Your task to perform on an android device: open app "Roku - Official Remote Control" Image 0: 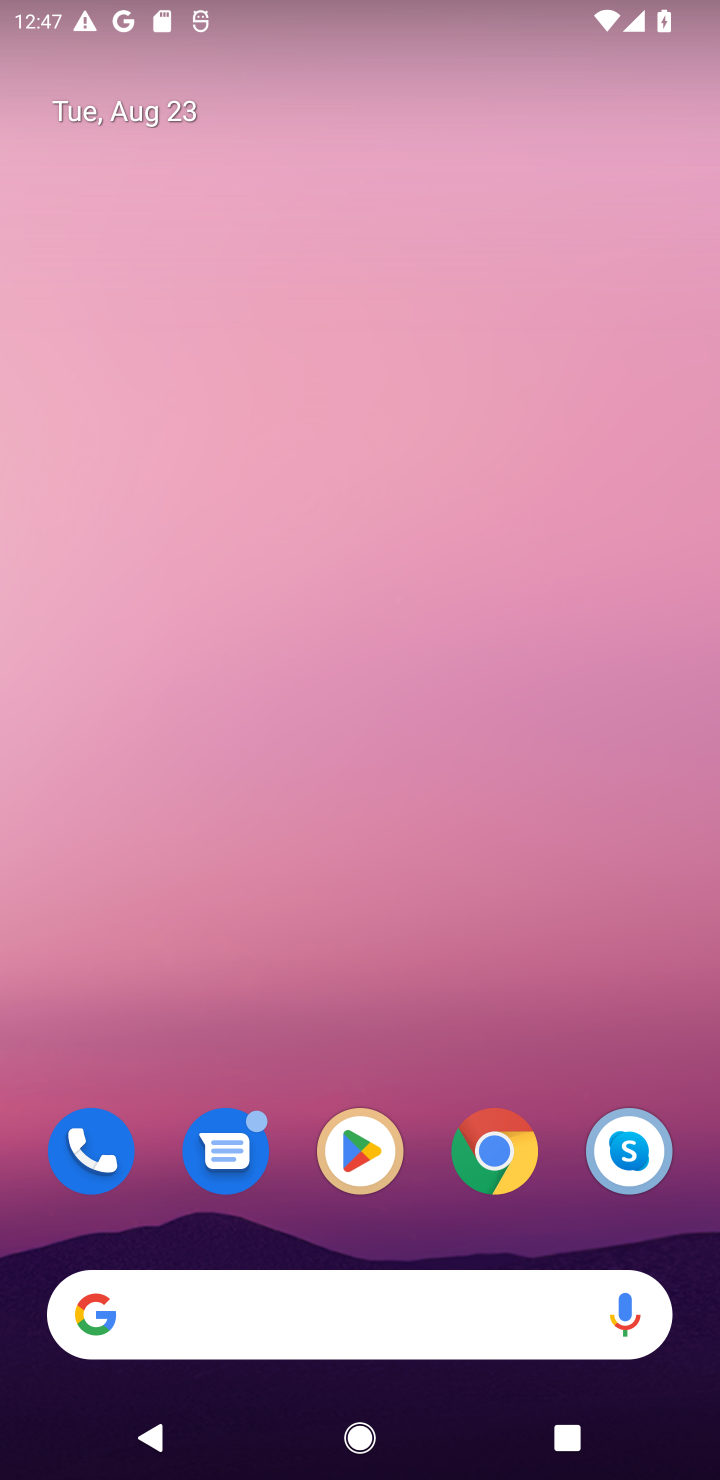
Step 0: click (375, 1175)
Your task to perform on an android device: open app "Roku - Official Remote Control" Image 1: 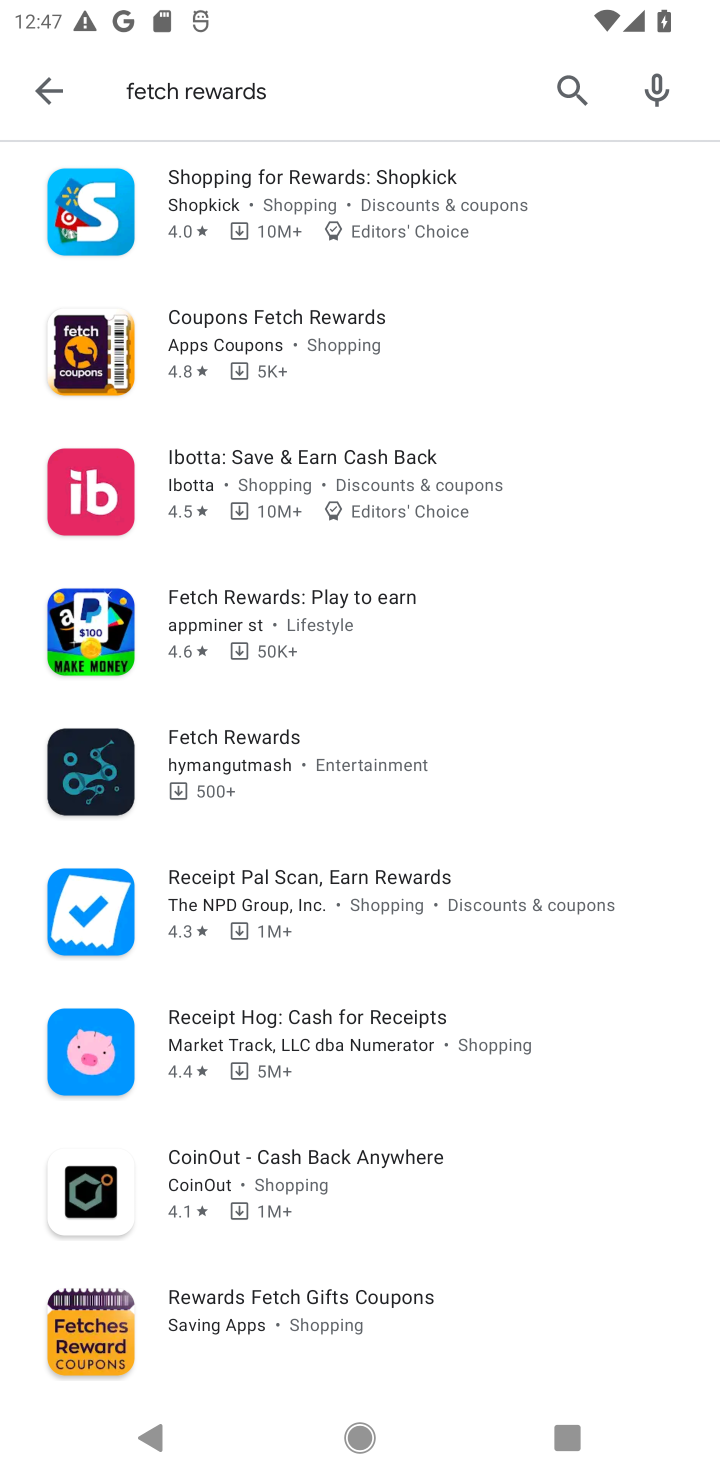
Step 1: click (559, 84)
Your task to perform on an android device: open app "Roku - Official Remote Control" Image 2: 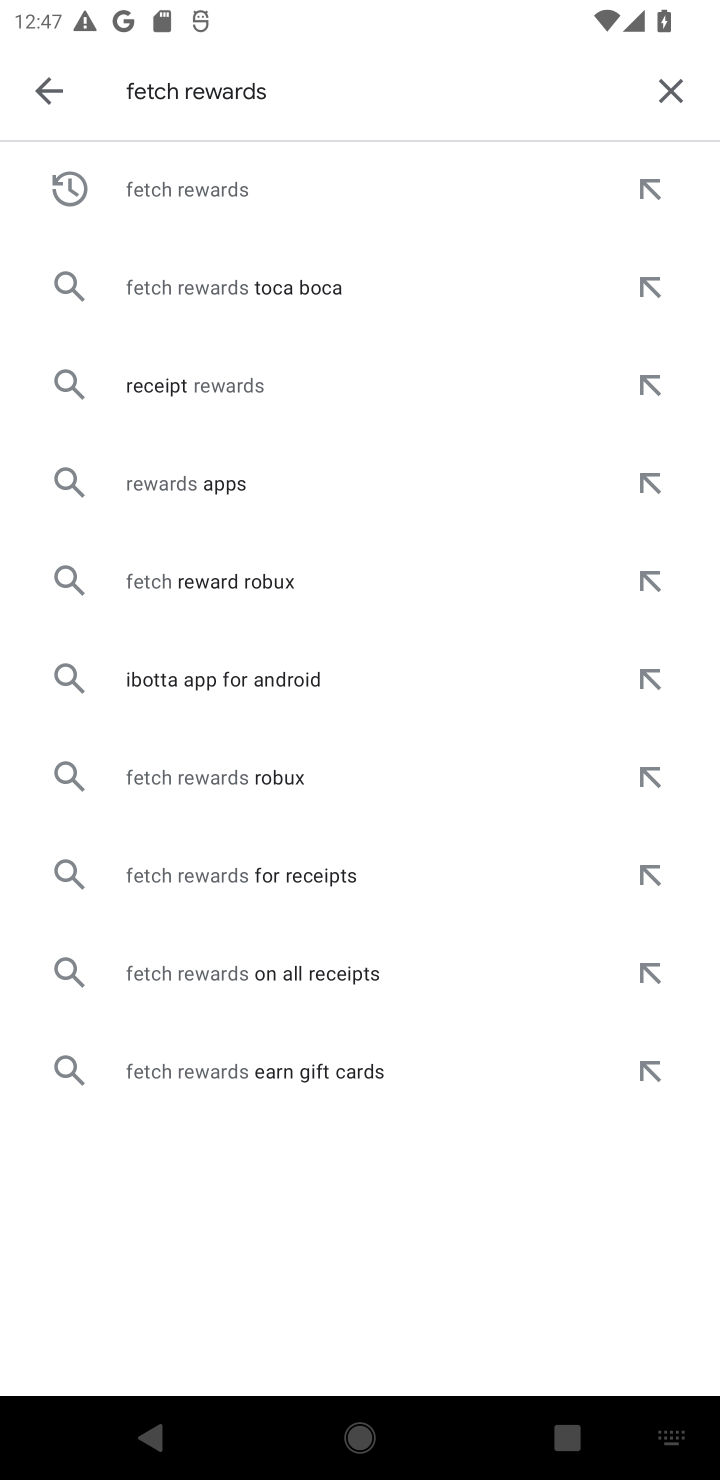
Step 2: click (663, 94)
Your task to perform on an android device: open app "Roku - Official Remote Control" Image 3: 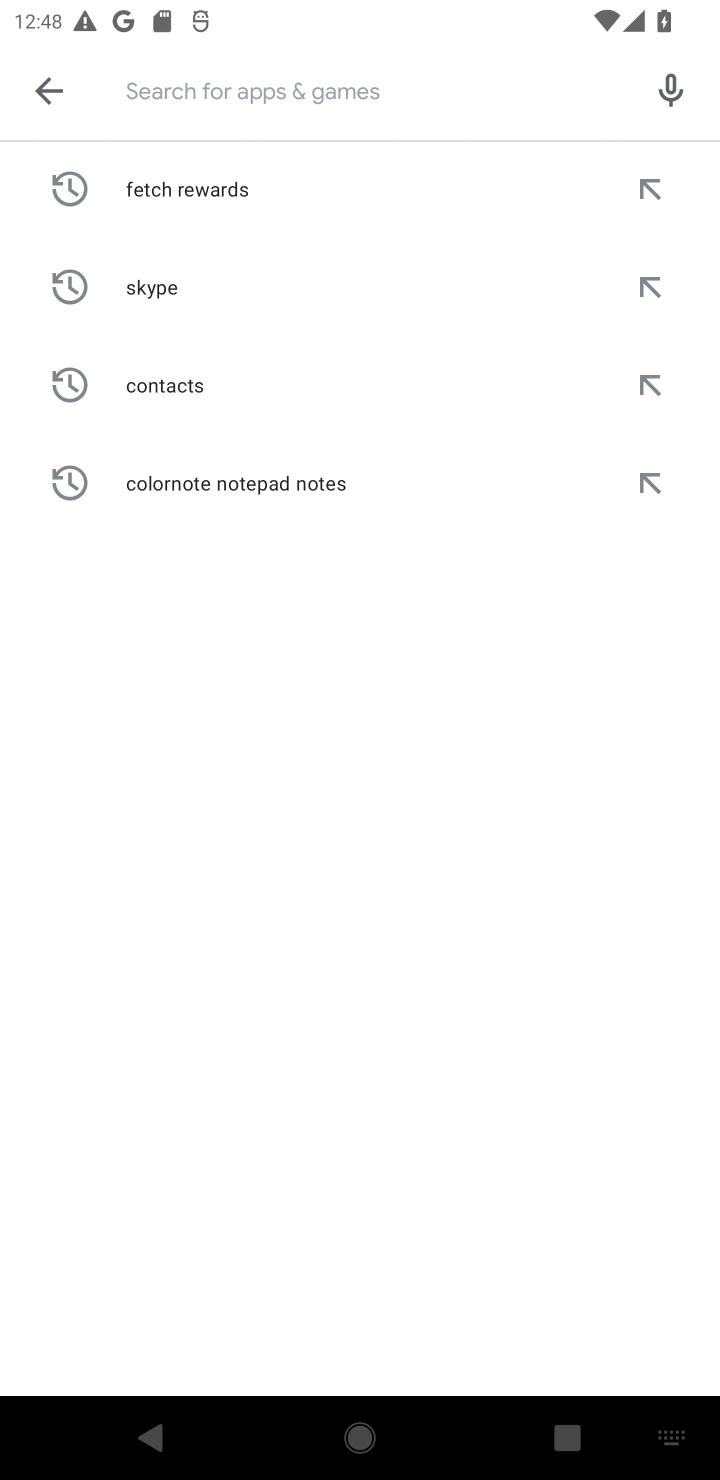
Step 3: type "Roku - Official Remote Control"
Your task to perform on an android device: open app "Roku - Official Remote Control" Image 4: 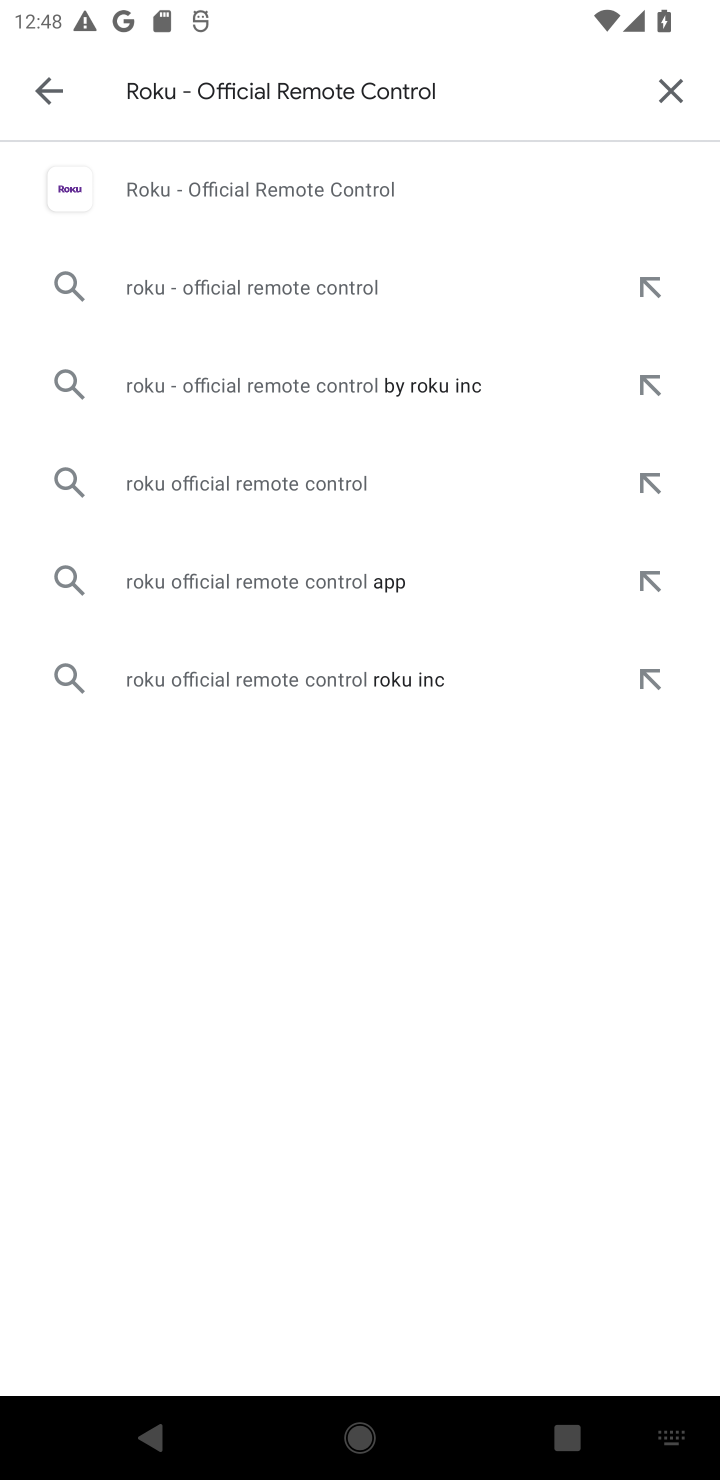
Step 4: click (225, 188)
Your task to perform on an android device: open app "Roku - Official Remote Control" Image 5: 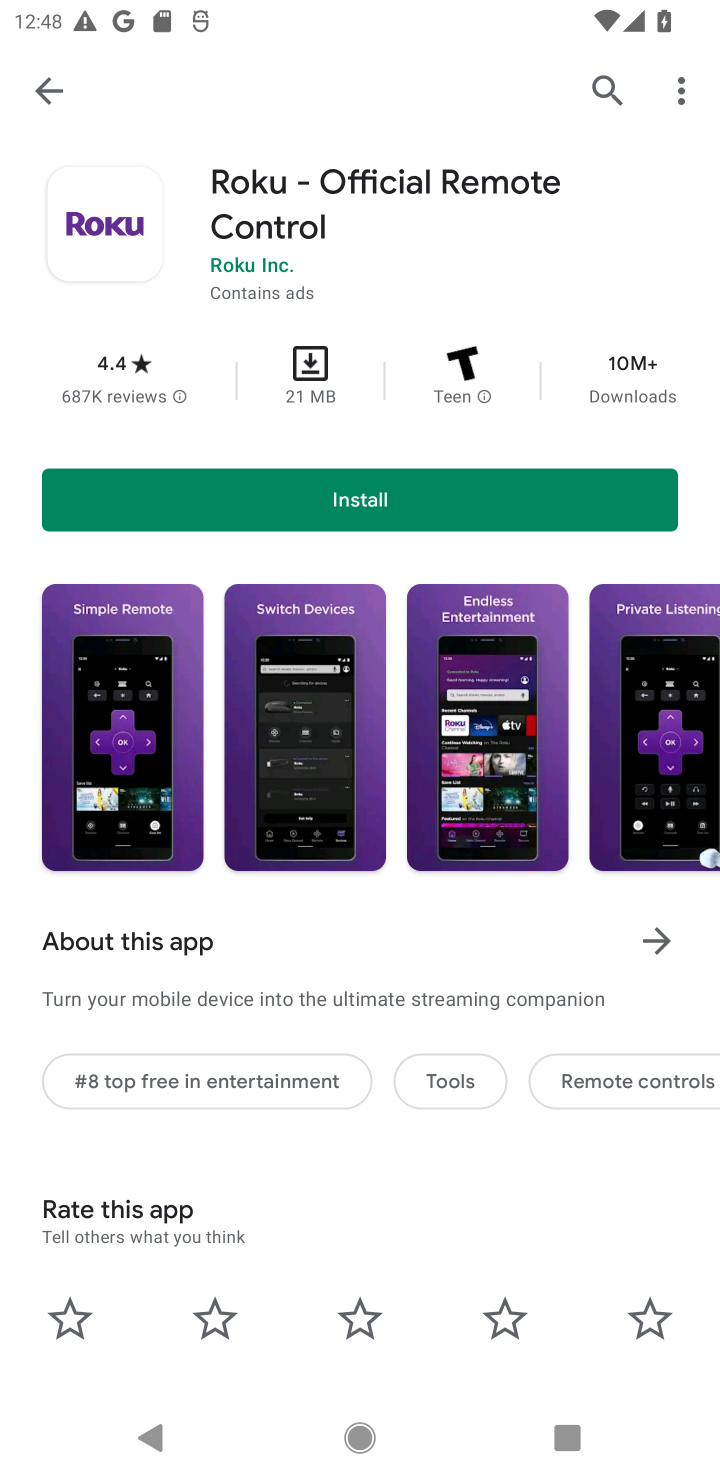
Step 5: task complete